Your task to perform on an android device: find photos in the google photos app Image 0: 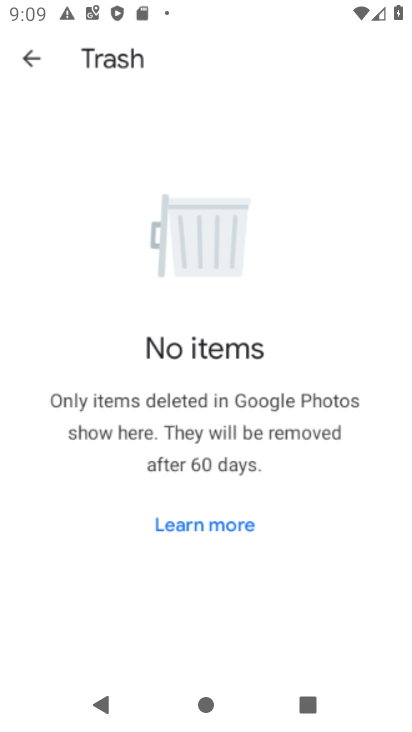
Step 0: press home button
Your task to perform on an android device: find photos in the google photos app Image 1: 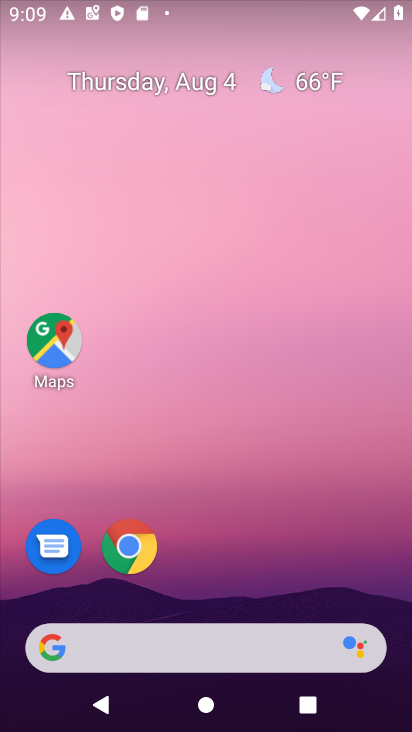
Step 1: drag from (224, 616) to (226, 134)
Your task to perform on an android device: find photos in the google photos app Image 2: 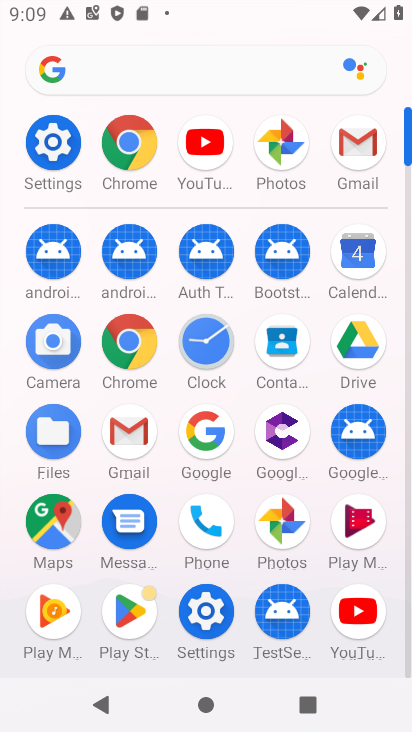
Step 2: click (291, 141)
Your task to perform on an android device: find photos in the google photos app Image 3: 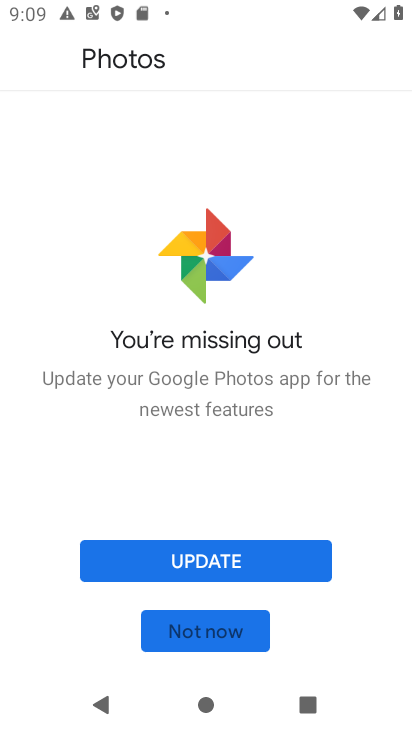
Step 3: click (306, 422)
Your task to perform on an android device: find photos in the google photos app Image 4: 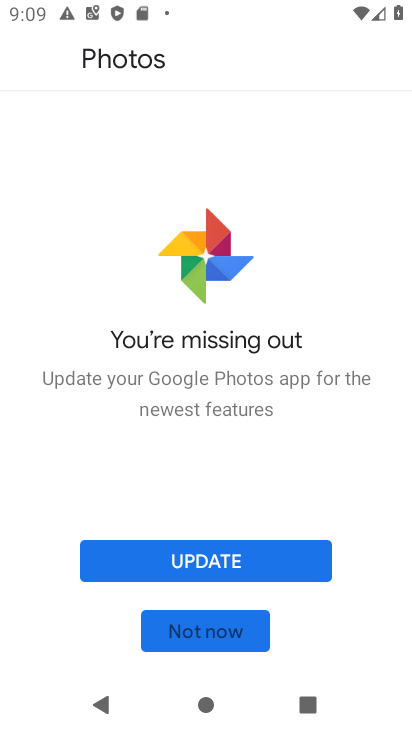
Step 4: click (190, 548)
Your task to perform on an android device: find photos in the google photos app Image 5: 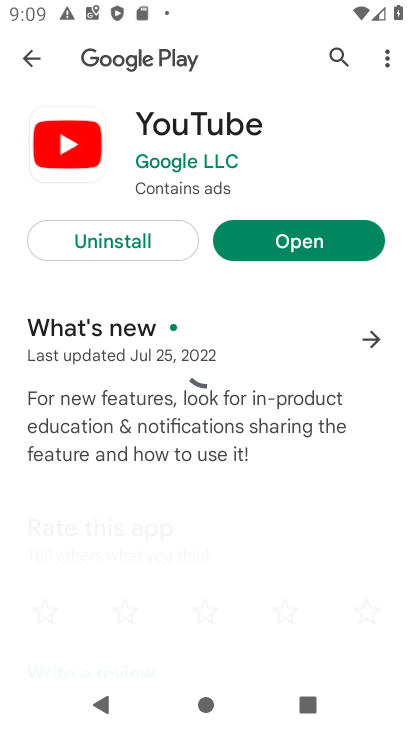
Step 5: click (29, 57)
Your task to perform on an android device: find photos in the google photos app Image 6: 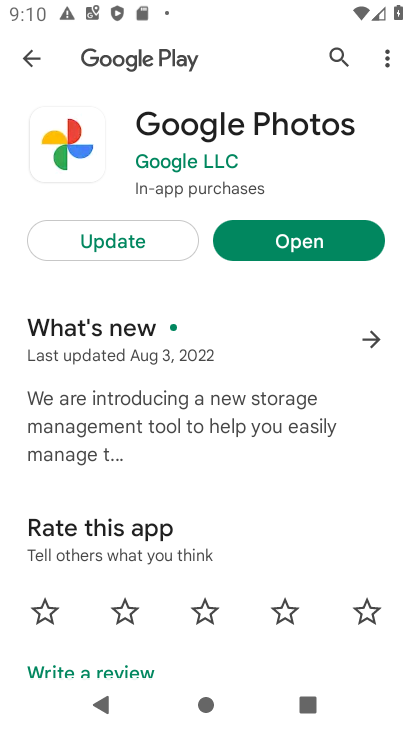
Step 6: click (112, 242)
Your task to perform on an android device: find photos in the google photos app Image 7: 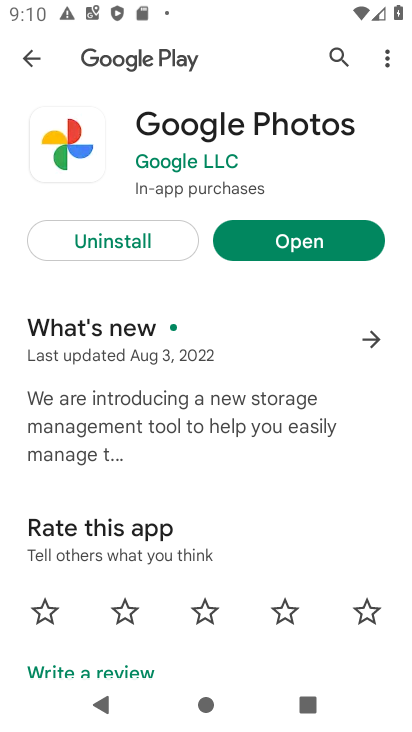
Step 7: click (310, 252)
Your task to perform on an android device: find photos in the google photos app Image 8: 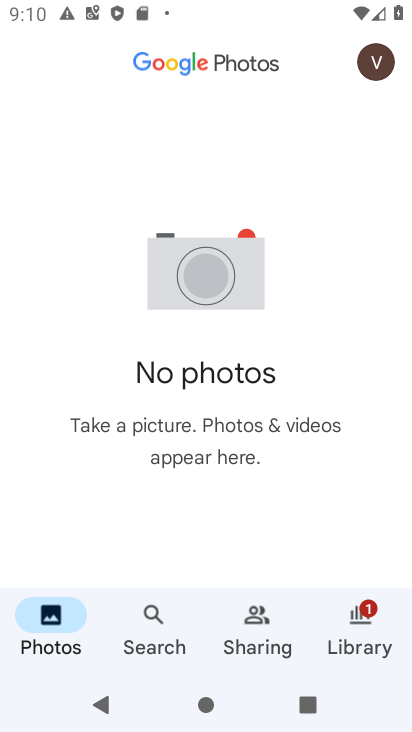
Step 8: task complete